Your task to perform on an android device: toggle pop-ups in chrome Image 0: 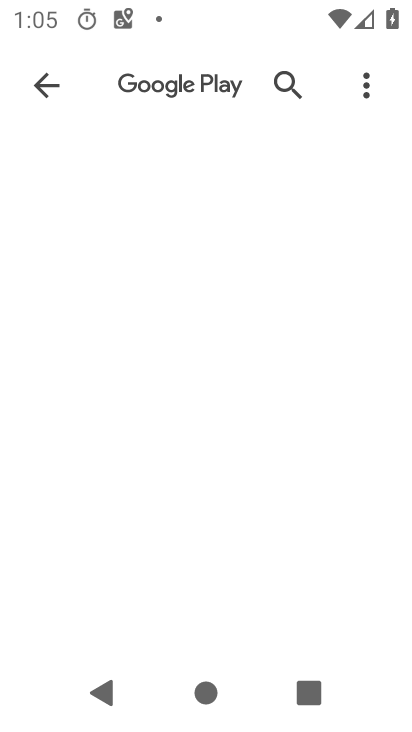
Step 0: press home button
Your task to perform on an android device: toggle pop-ups in chrome Image 1: 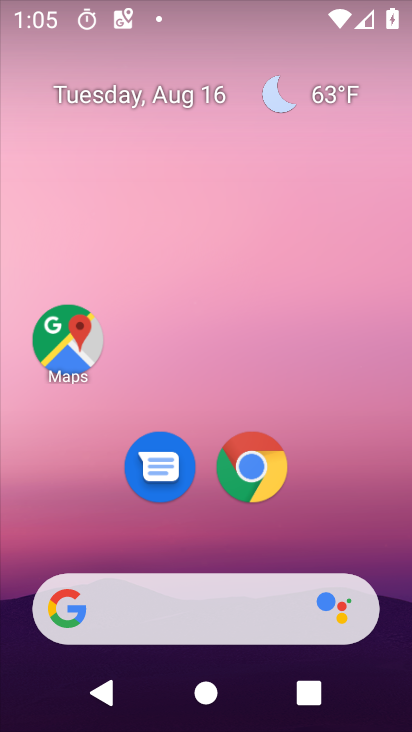
Step 1: drag from (363, 540) to (399, 113)
Your task to perform on an android device: toggle pop-ups in chrome Image 2: 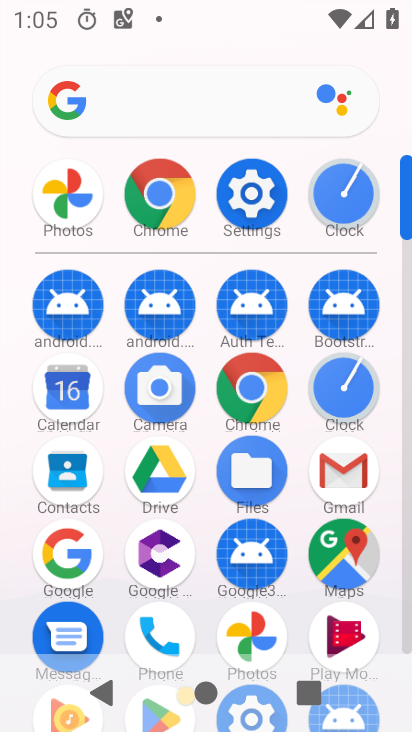
Step 2: click (251, 393)
Your task to perform on an android device: toggle pop-ups in chrome Image 3: 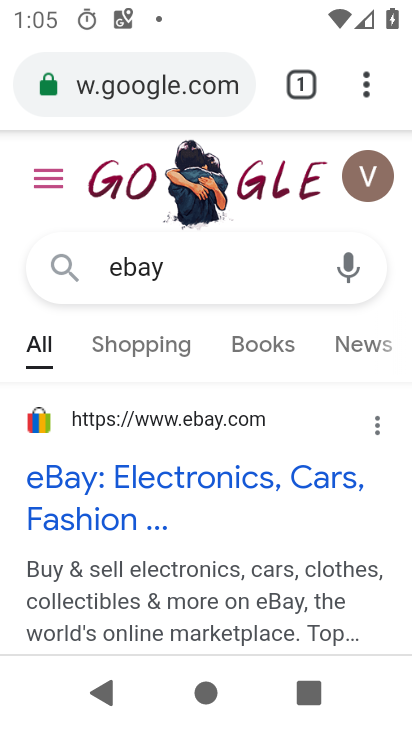
Step 3: click (365, 86)
Your task to perform on an android device: toggle pop-ups in chrome Image 4: 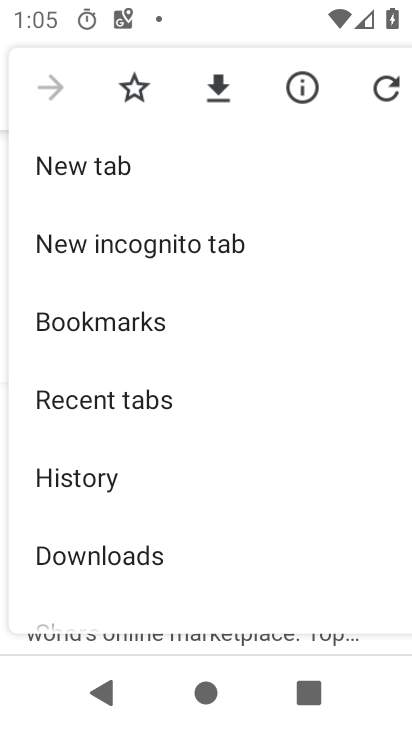
Step 4: drag from (330, 450) to (342, 224)
Your task to perform on an android device: toggle pop-ups in chrome Image 5: 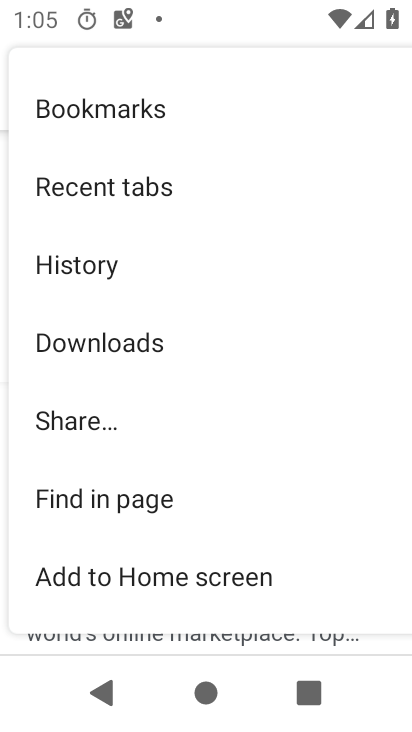
Step 5: drag from (335, 400) to (325, 265)
Your task to perform on an android device: toggle pop-ups in chrome Image 6: 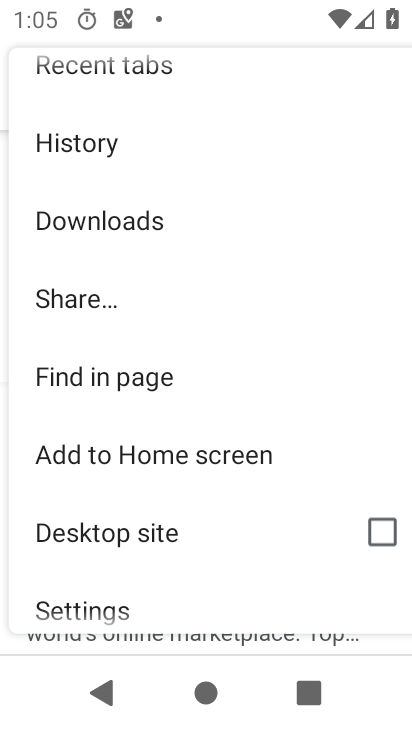
Step 6: drag from (327, 436) to (315, 310)
Your task to perform on an android device: toggle pop-ups in chrome Image 7: 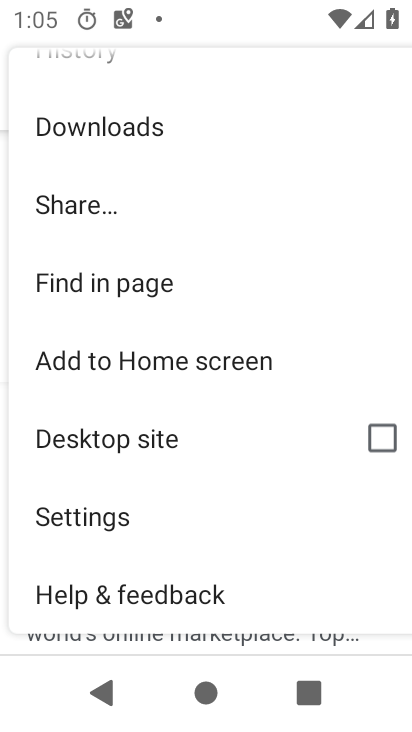
Step 7: click (172, 524)
Your task to perform on an android device: toggle pop-ups in chrome Image 8: 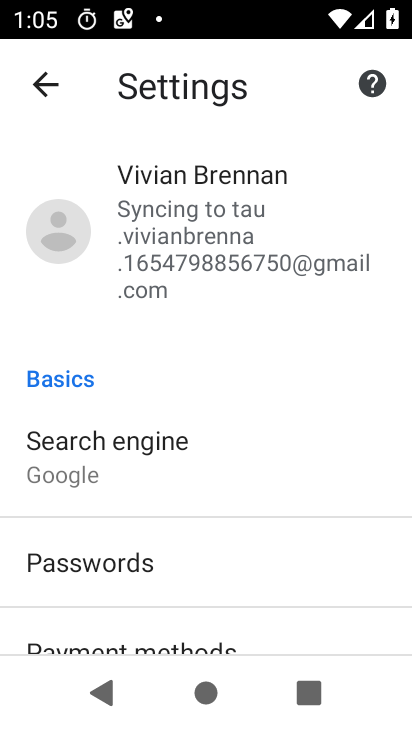
Step 8: drag from (275, 551) to (290, 428)
Your task to perform on an android device: toggle pop-ups in chrome Image 9: 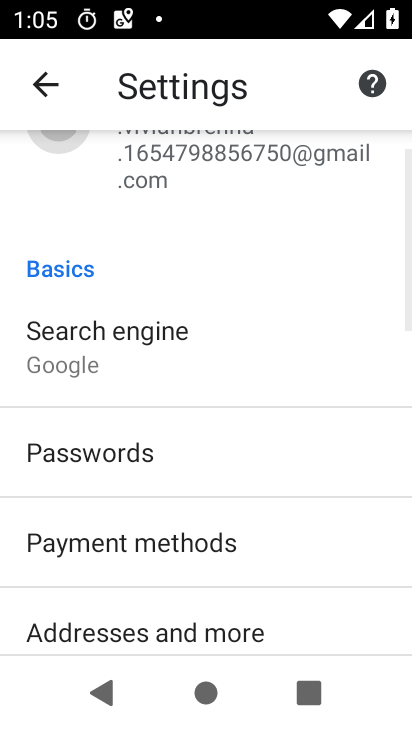
Step 9: drag from (308, 560) to (312, 443)
Your task to perform on an android device: toggle pop-ups in chrome Image 10: 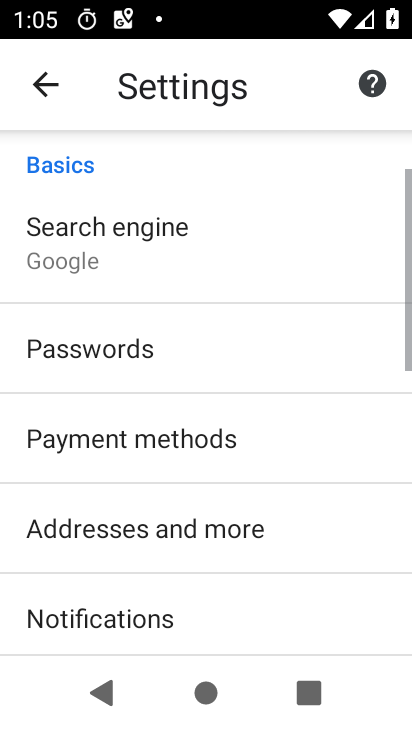
Step 10: drag from (338, 557) to (336, 414)
Your task to perform on an android device: toggle pop-ups in chrome Image 11: 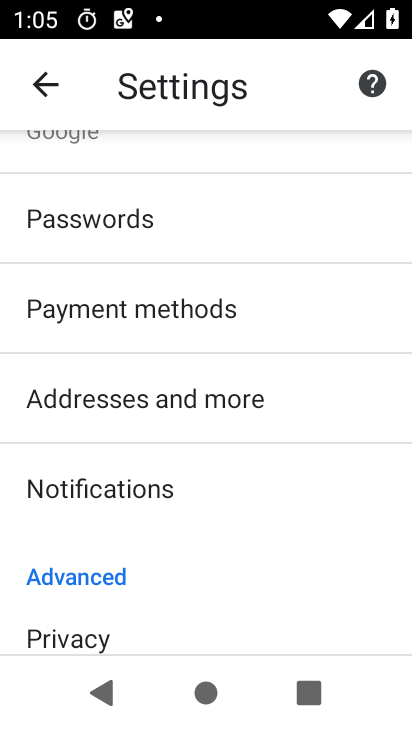
Step 11: drag from (343, 523) to (342, 434)
Your task to perform on an android device: toggle pop-ups in chrome Image 12: 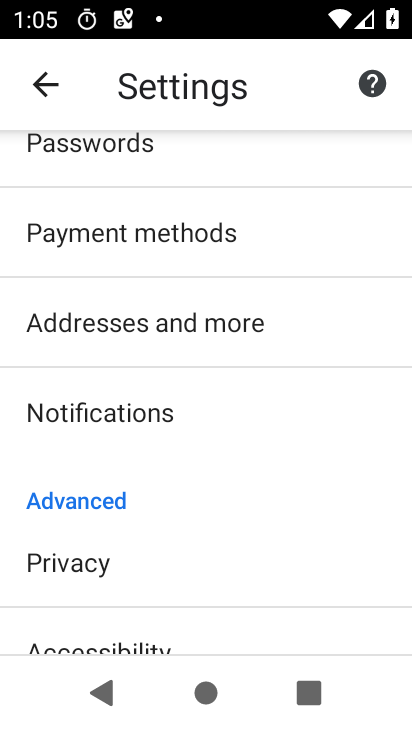
Step 12: drag from (325, 538) to (328, 411)
Your task to perform on an android device: toggle pop-ups in chrome Image 13: 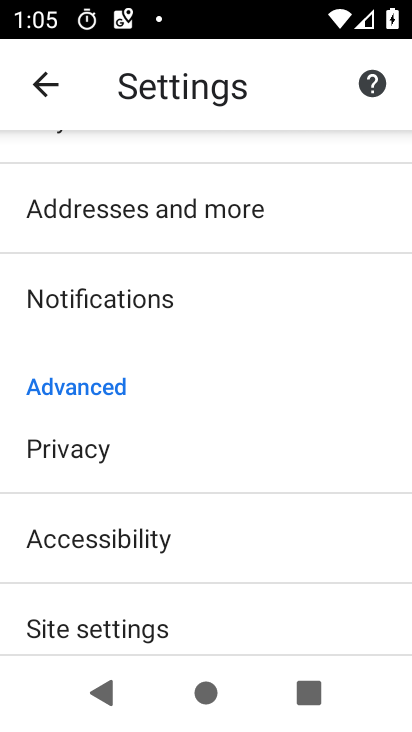
Step 13: drag from (320, 516) to (319, 401)
Your task to perform on an android device: toggle pop-ups in chrome Image 14: 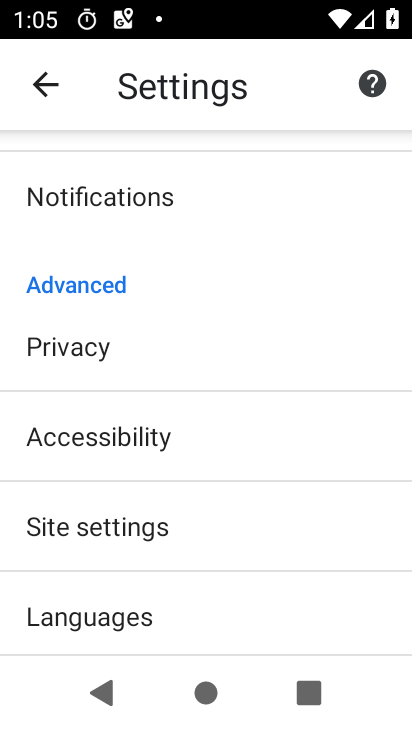
Step 14: drag from (263, 561) to (282, 348)
Your task to perform on an android device: toggle pop-ups in chrome Image 15: 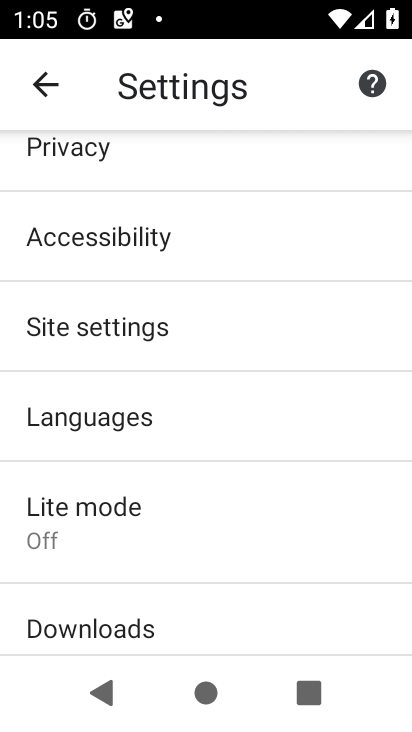
Step 15: click (247, 336)
Your task to perform on an android device: toggle pop-ups in chrome Image 16: 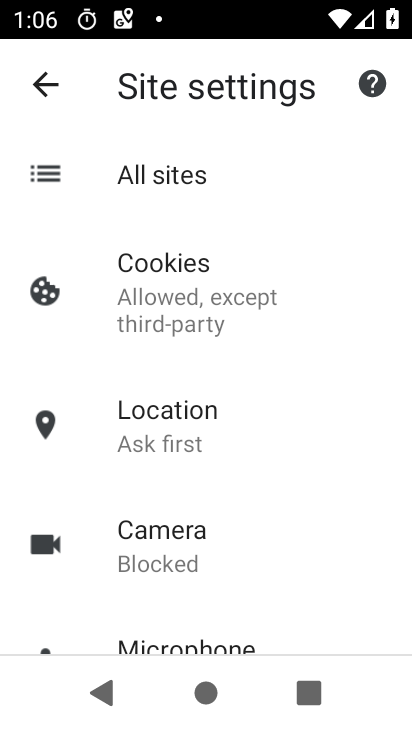
Step 16: drag from (316, 478) to (322, 350)
Your task to perform on an android device: toggle pop-ups in chrome Image 17: 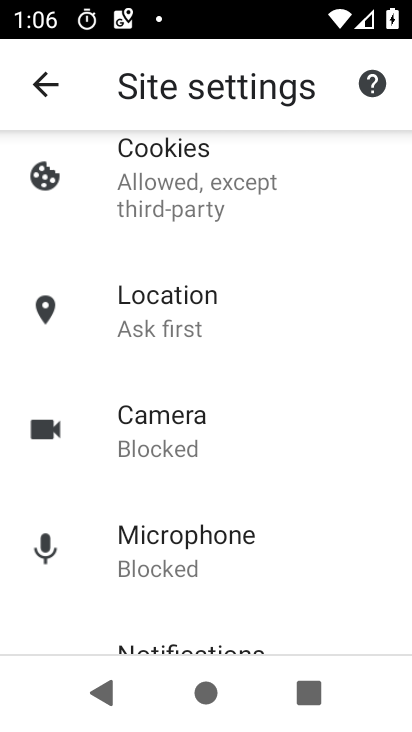
Step 17: drag from (311, 463) to (320, 311)
Your task to perform on an android device: toggle pop-ups in chrome Image 18: 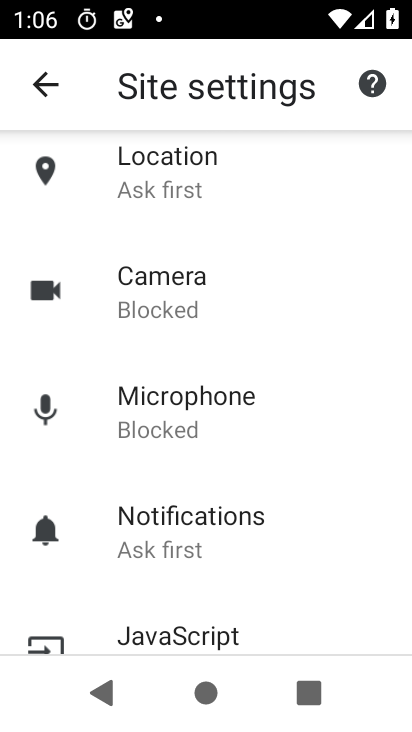
Step 18: drag from (323, 473) to (323, 325)
Your task to perform on an android device: toggle pop-ups in chrome Image 19: 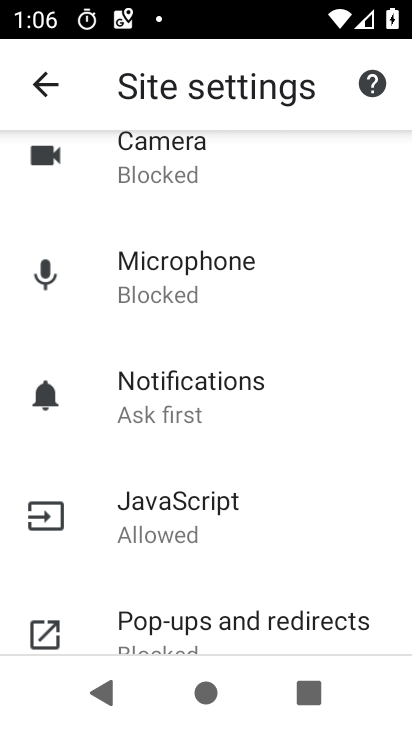
Step 19: drag from (322, 481) to (322, 334)
Your task to perform on an android device: toggle pop-ups in chrome Image 20: 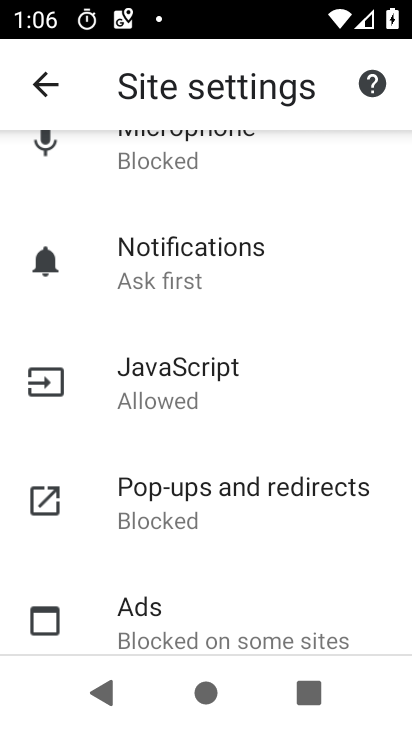
Step 20: drag from (312, 555) to (309, 390)
Your task to perform on an android device: toggle pop-ups in chrome Image 21: 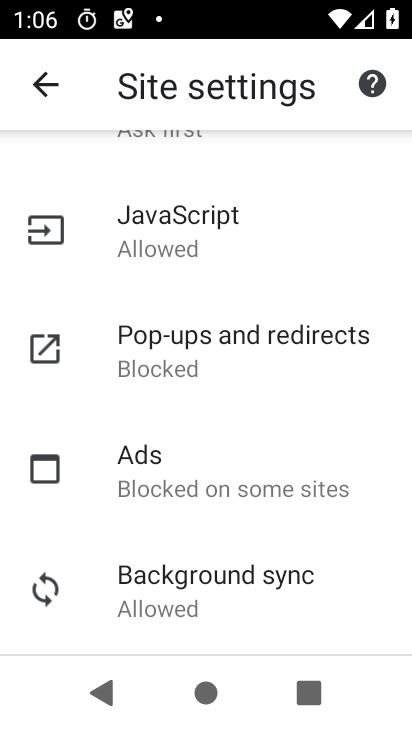
Step 21: click (301, 355)
Your task to perform on an android device: toggle pop-ups in chrome Image 22: 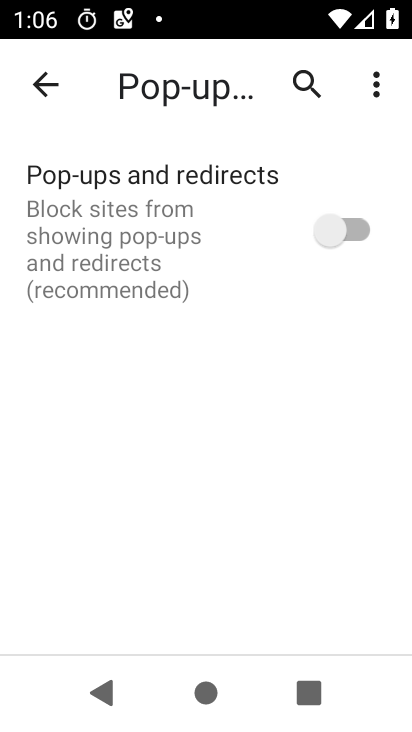
Step 22: click (337, 234)
Your task to perform on an android device: toggle pop-ups in chrome Image 23: 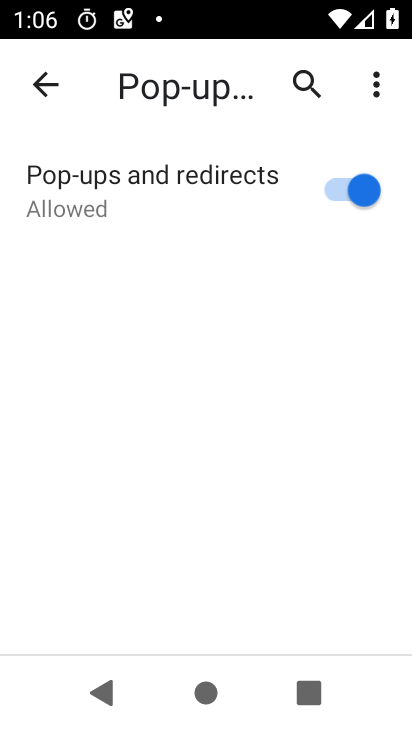
Step 23: task complete